Your task to perform on an android device: What is the capital of India? Image 0: 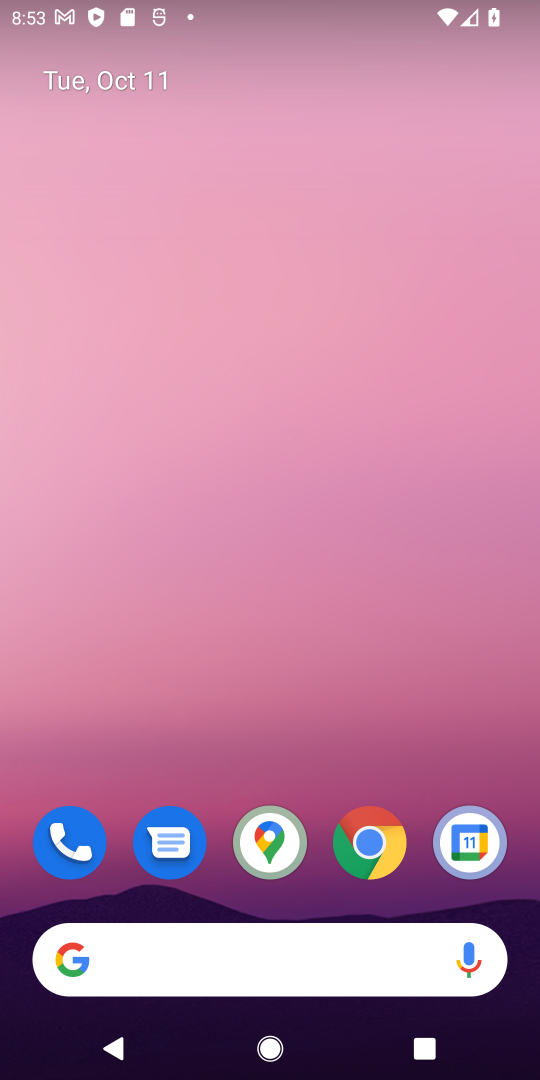
Step 0: click (246, 942)
Your task to perform on an android device: What is the capital of India? Image 1: 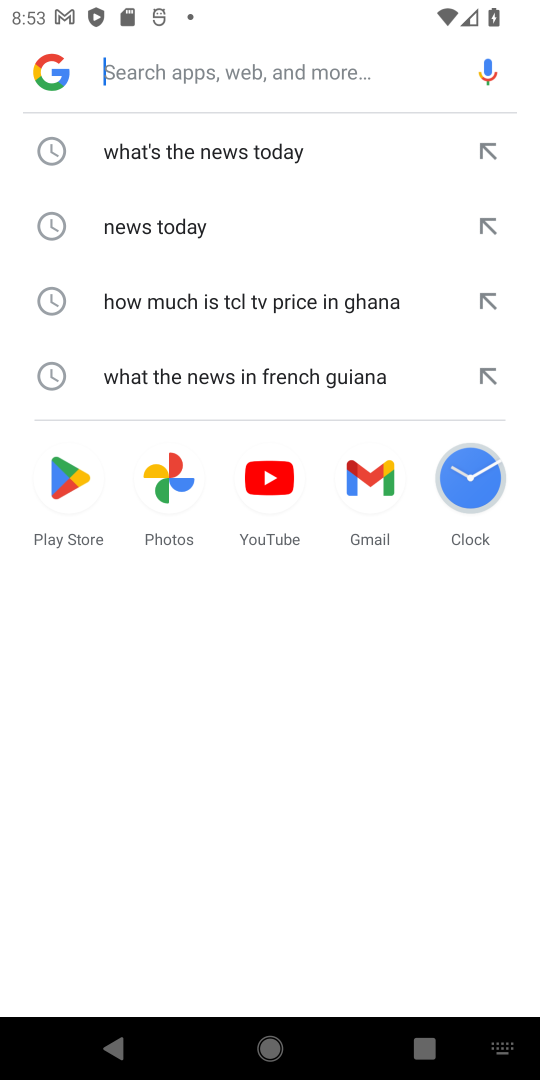
Step 1: type "What is the capital of India?"
Your task to perform on an android device: What is the capital of India? Image 2: 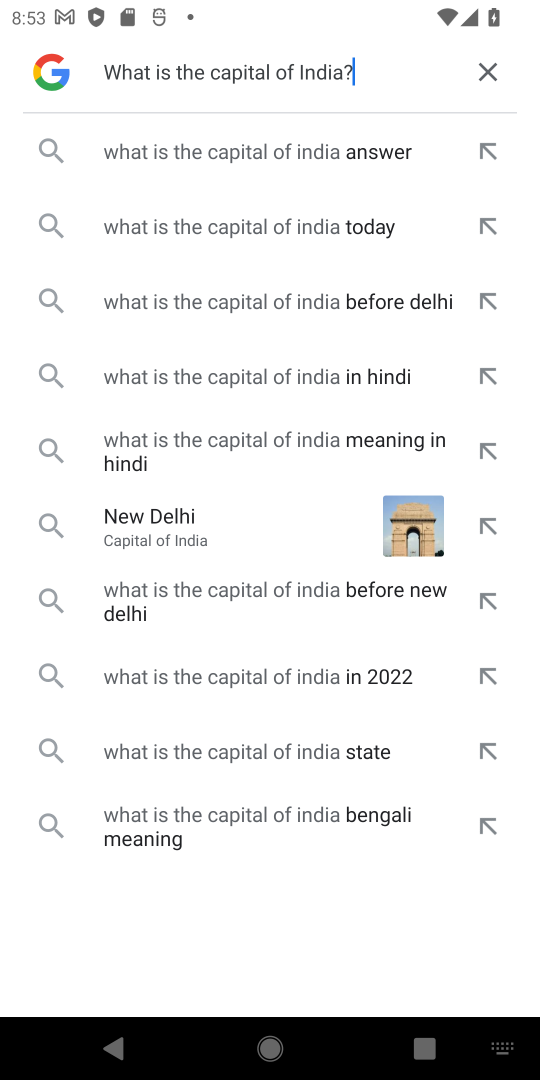
Step 2: click (337, 222)
Your task to perform on an android device: What is the capital of India? Image 3: 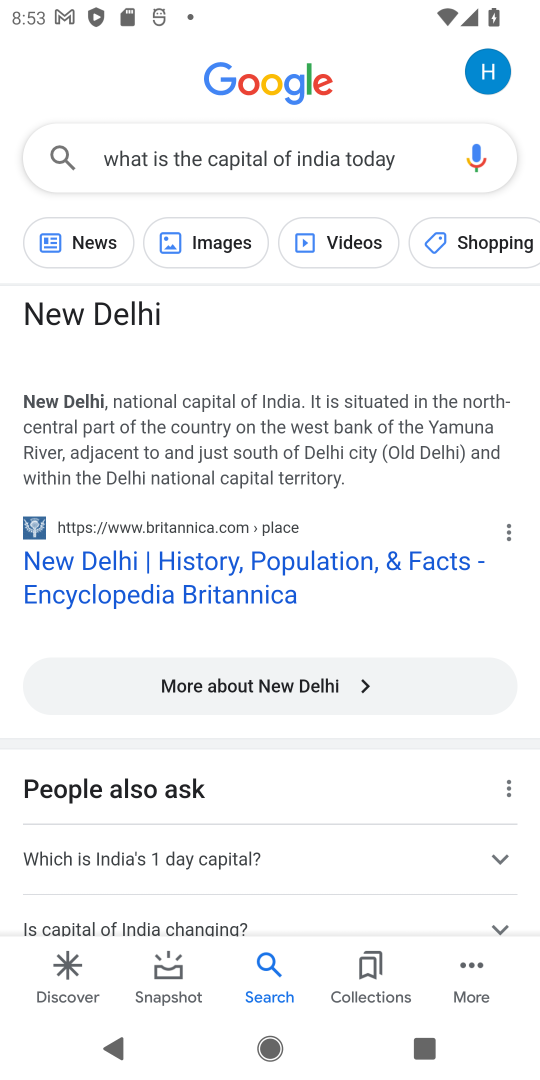
Step 3: task complete